Your task to perform on an android device: open sync settings in chrome Image 0: 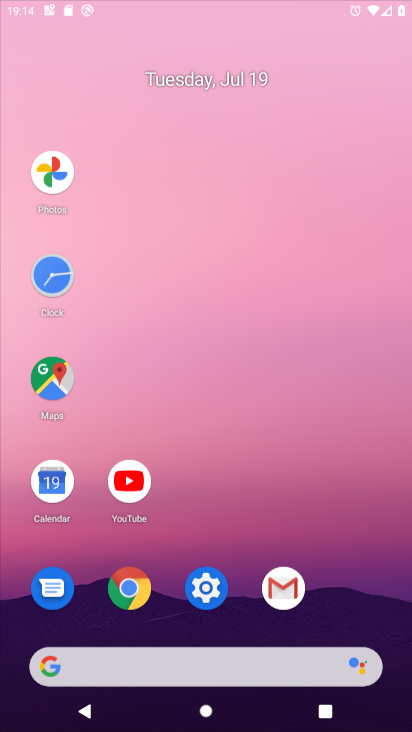
Step 0: click (48, 490)
Your task to perform on an android device: open sync settings in chrome Image 1: 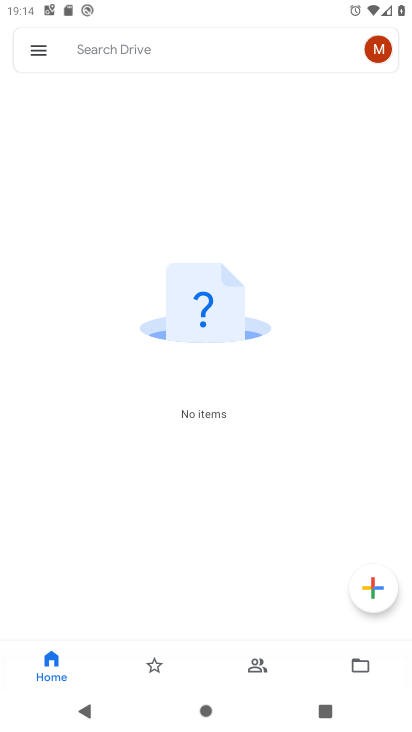
Step 1: press home button
Your task to perform on an android device: open sync settings in chrome Image 2: 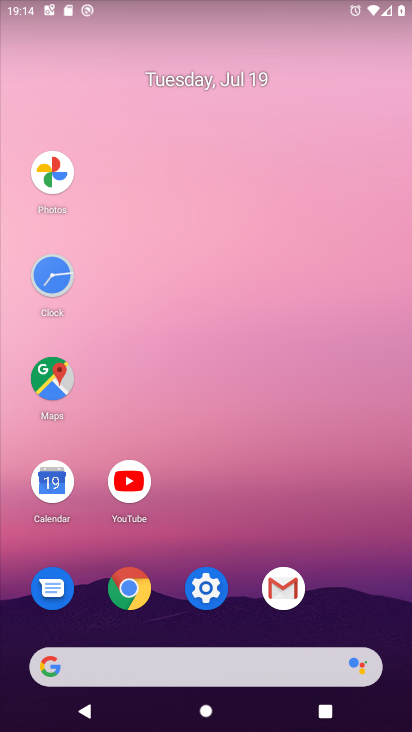
Step 2: click (123, 584)
Your task to perform on an android device: open sync settings in chrome Image 3: 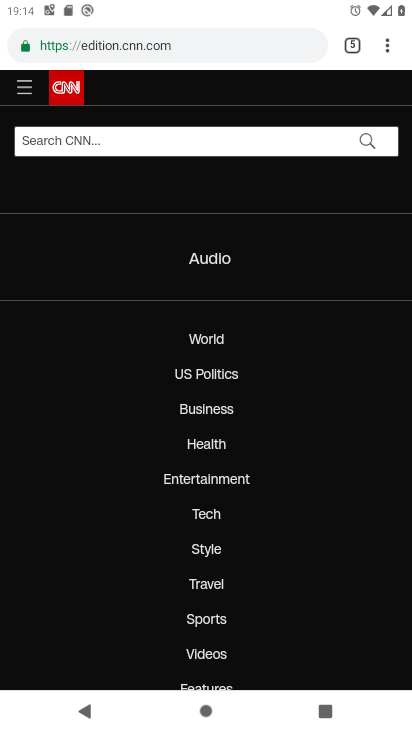
Step 3: click (388, 43)
Your task to perform on an android device: open sync settings in chrome Image 4: 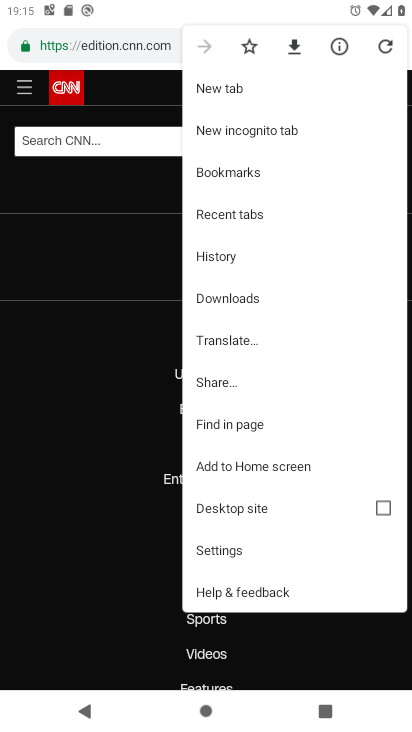
Step 4: click (213, 550)
Your task to perform on an android device: open sync settings in chrome Image 5: 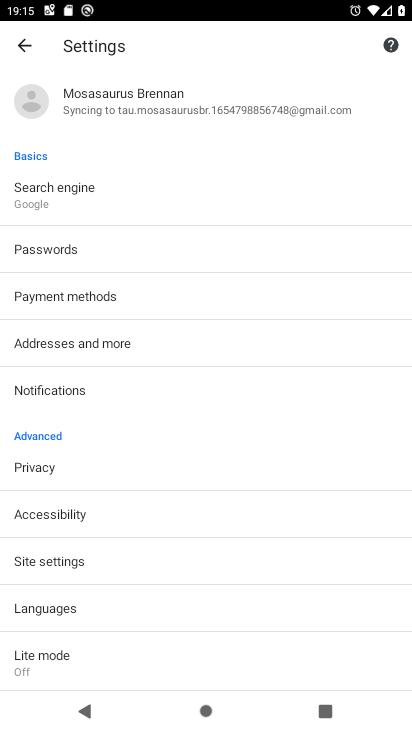
Step 5: click (95, 84)
Your task to perform on an android device: open sync settings in chrome Image 6: 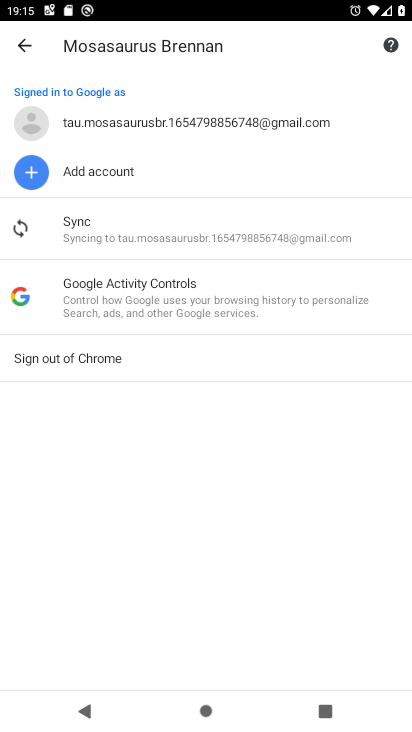
Step 6: click (81, 214)
Your task to perform on an android device: open sync settings in chrome Image 7: 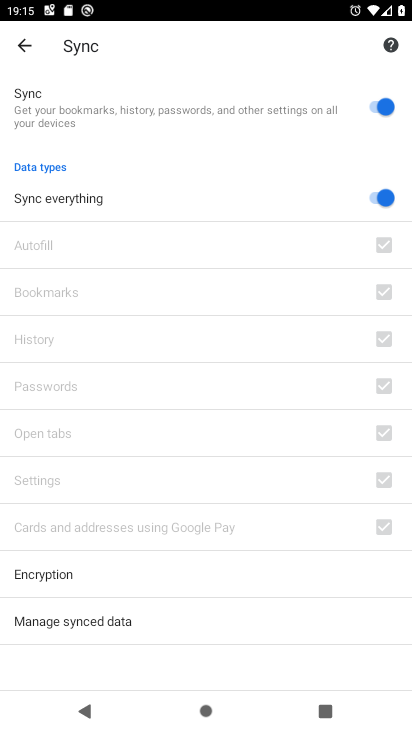
Step 7: task complete